Your task to perform on an android device: Search for pizza restaurants on Maps Image 0: 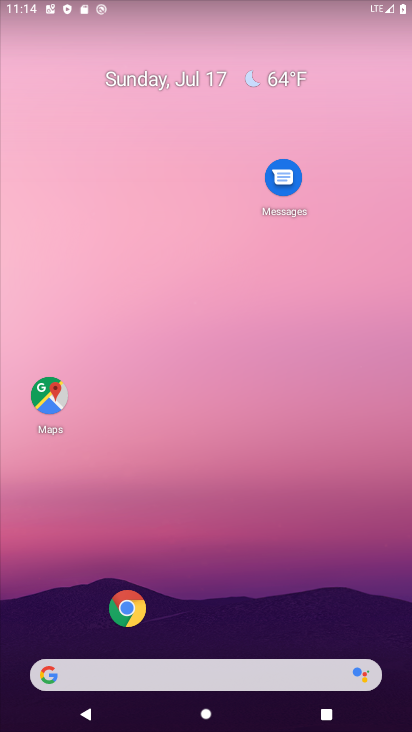
Step 0: click (38, 401)
Your task to perform on an android device: Search for pizza restaurants on Maps Image 1: 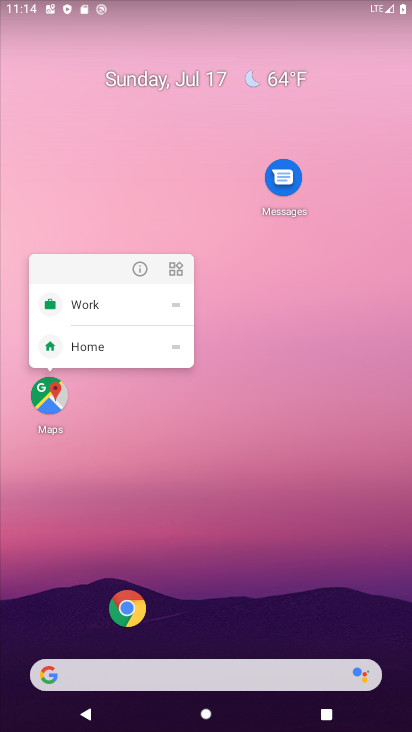
Step 1: click (165, 705)
Your task to perform on an android device: Search for pizza restaurants on Maps Image 2: 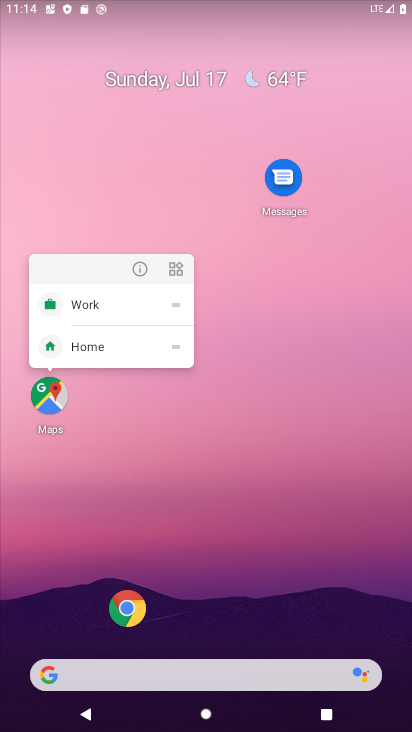
Step 2: click (144, 679)
Your task to perform on an android device: Search for pizza restaurants on Maps Image 3: 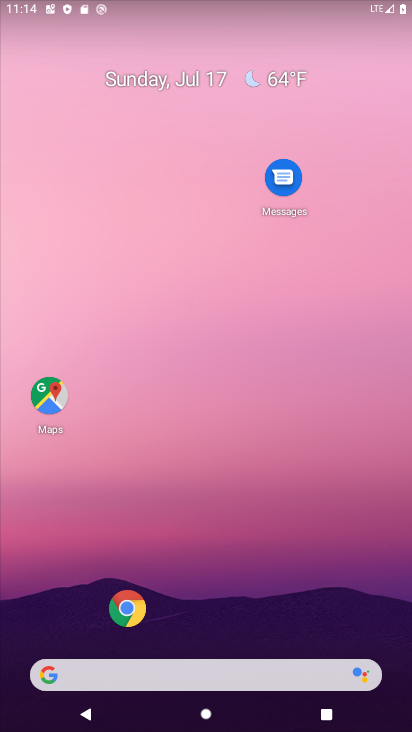
Step 3: click (132, 662)
Your task to perform on an android device: Search for pizza restaurants on Maps Image 4: 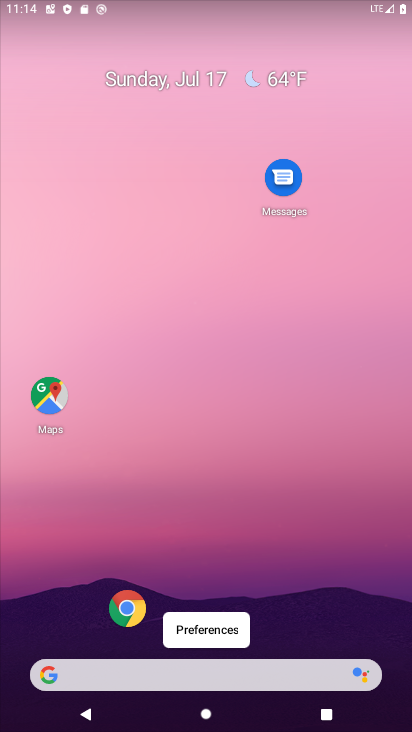
Step 4: click (42, 399)
Your task to perform on an android device: Search for pizza restaurants on Maps Image 5: 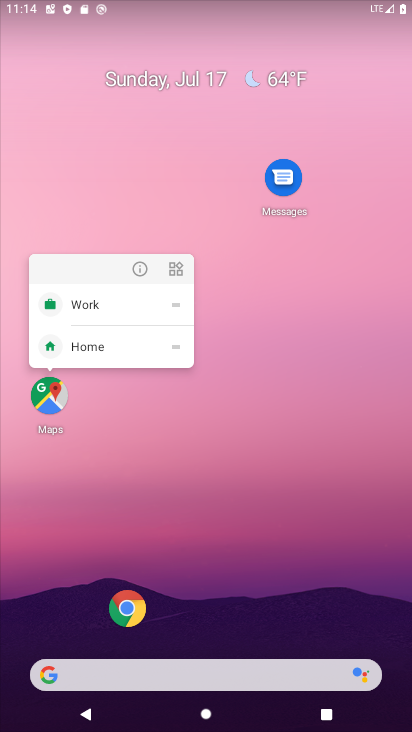
Step 5: click (42, 399)
Your task to perform on an android device: Search for pizza restaurants on Maps Image 6: 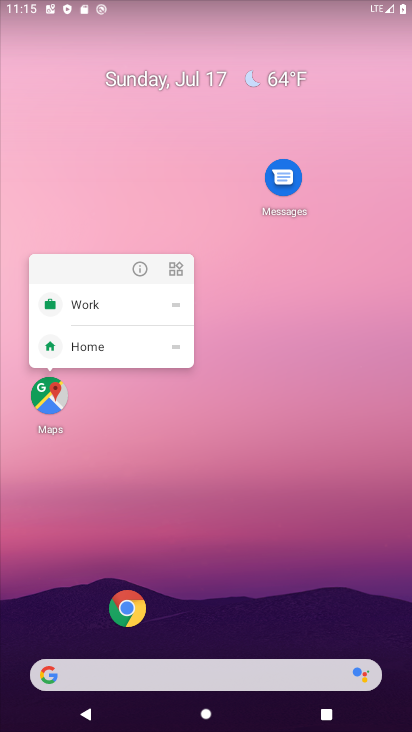
Step 6: click (42, 398)
Your task to perform on an android device: Search for pizza restaurants on Maps Image 7: 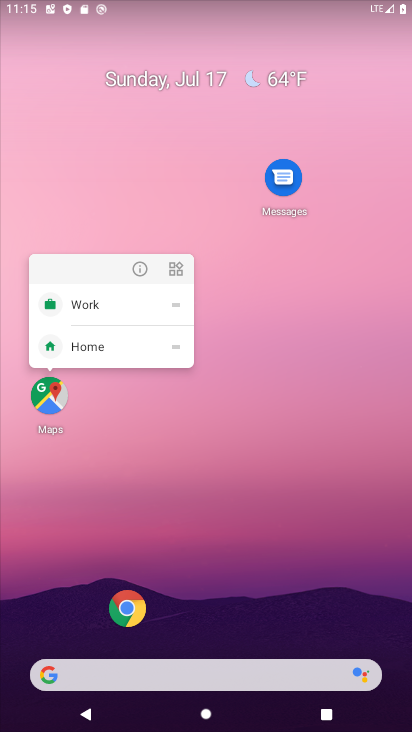
Step 7: task complete